Your task to perform on an android device: Show me the alarms in the clock app Image 0: 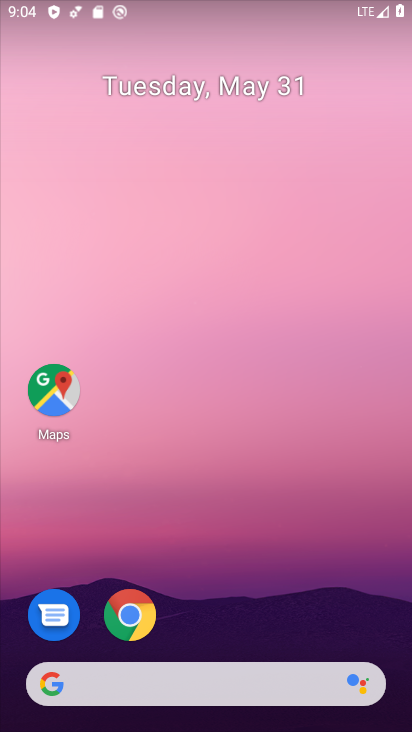
Step 0: drag from (246, 617) to (299, 141)
Your task to perform on an android device: Show me the alarms in the clock app Image 1: 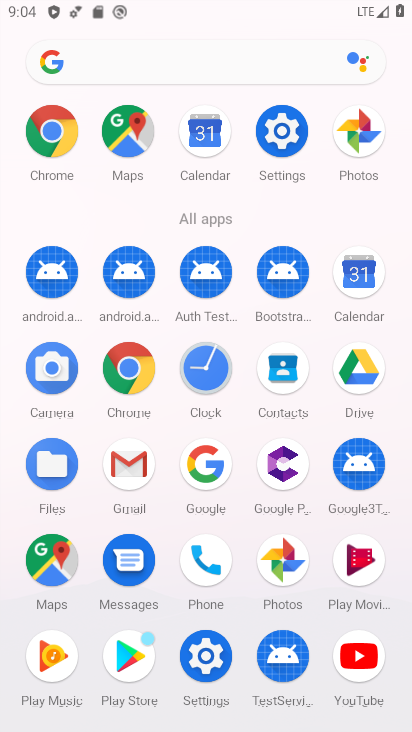
Step 1: click (192, 366)
Your task to perform on an android device: Show me the alarms in the clock app Image 2: 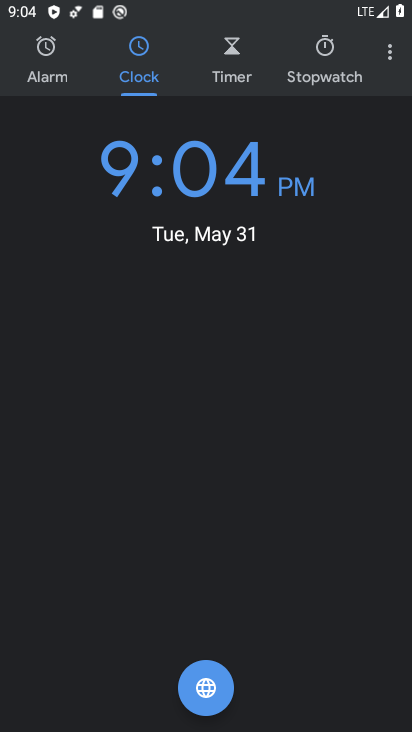
Step 2: click (52, 69)
Your task to perform on an android device: Show me the alarms in the clock app Image 3: 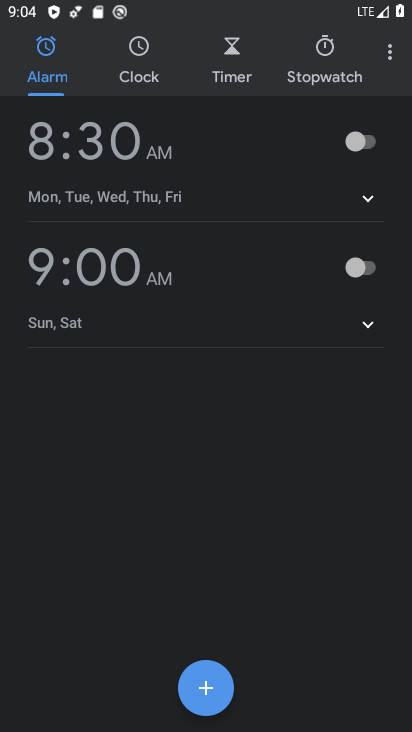
Step 3: task complete